Your task to perform on an android device: toggle javascript in the chrome app Image 0: 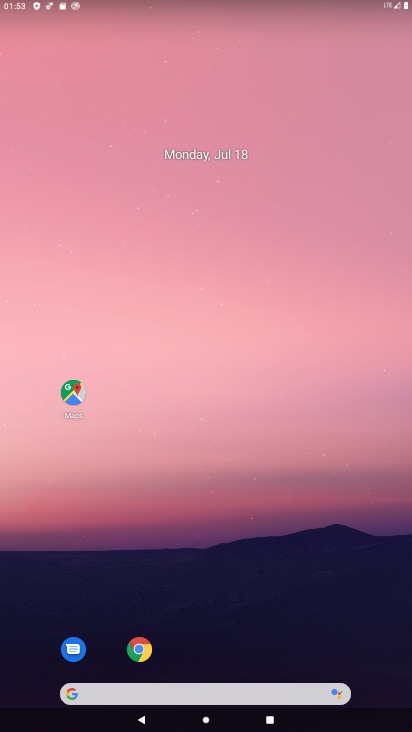
Step 0: drag from (193, 536) to (194, 108)
Your task to perform on an android device: toggle javascript in the chrome app Image 1: 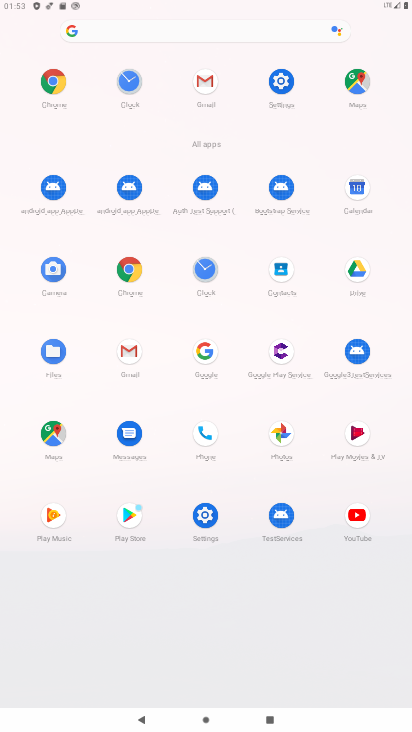
Step 1: click (54, 85)
Your task to perform on an android device: toggle javascript in the chrome app Image 2: 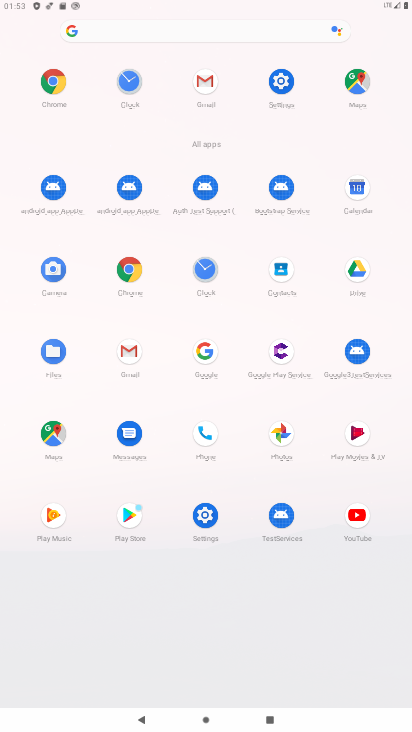
Step 2: click (54, 85)
Your task to perform on an android device: toggle javascript in the chrome app Image 3: 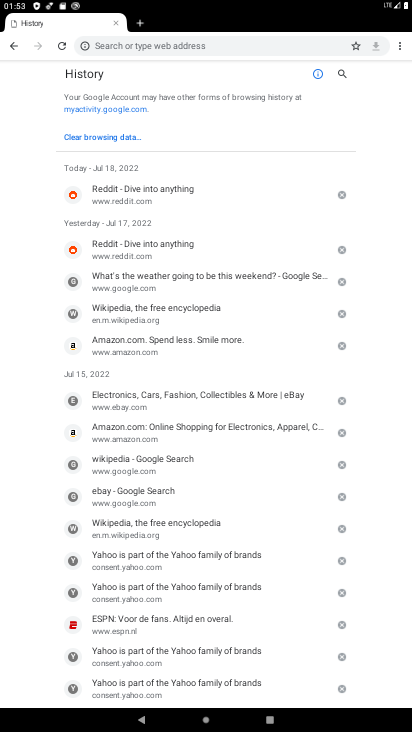
Step 3: click (399, 49)
Your task to perform on an android device: toggle javascript in the chrome app Image 4: 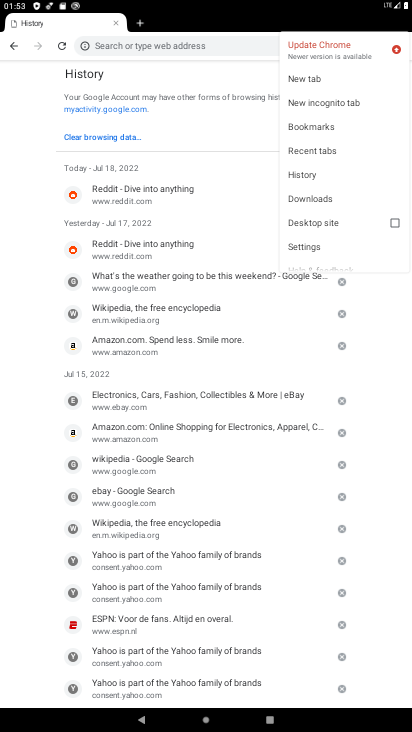
Step 4: click (311, 247)
Your task to perform on an android device: toggle javascript in the chrome app Image 5: 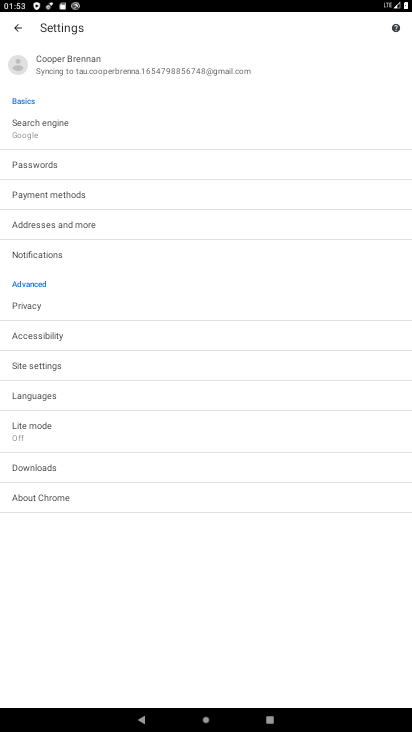
Step 5: click (39, 368)
Your task to perform on an android device: toggle javascript in the chrome app Image 6: 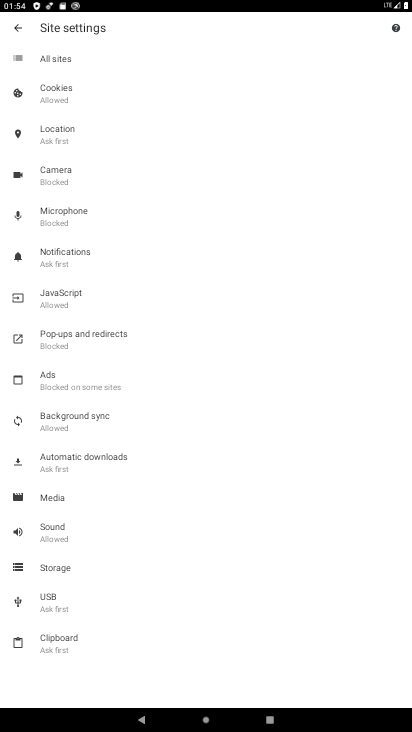
Step 6: click (65, 298)
Your task to perform on an android device: toggle javascript in the chrome app Image 7: 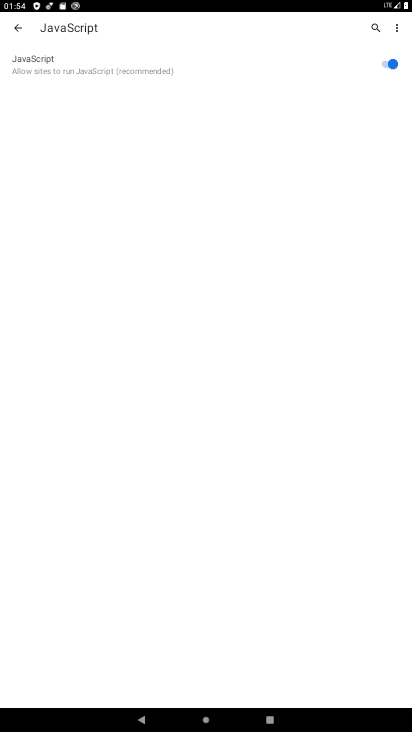
Step 7: click (394, 61)
Your task to perform on an android device: toggle javascript in the chrome app Image 8: 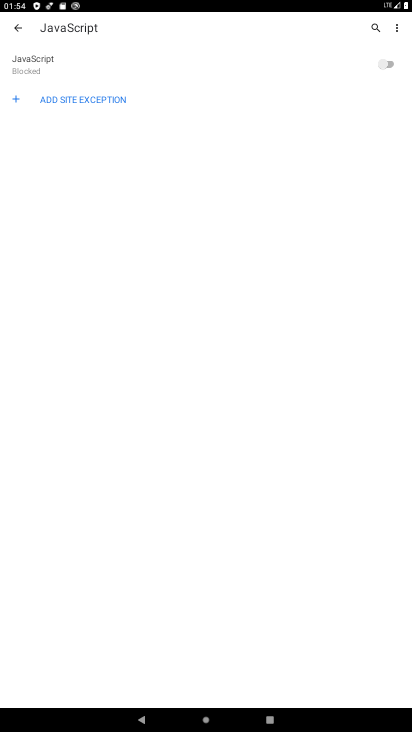
Step 8: task complete